Your task to perform on an android device: Go to CNN.com Image 0: 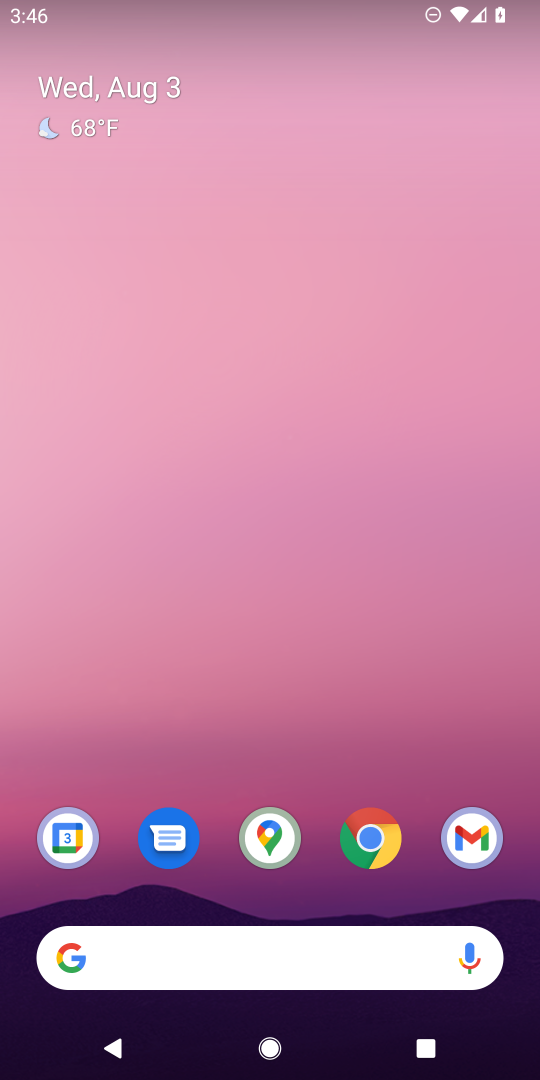
Step 0: click (366, 815)
Your task to perform on an android device: Go to CNN.com Image 1: 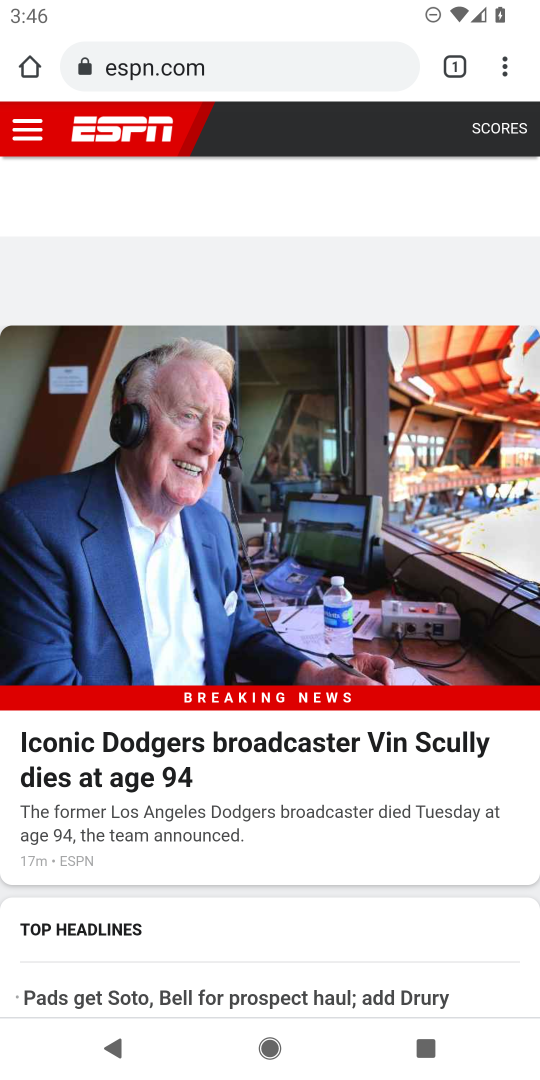
Step 1: click (305, 72)
Your task to perform on an android device: Go to CNN.com Image 2: 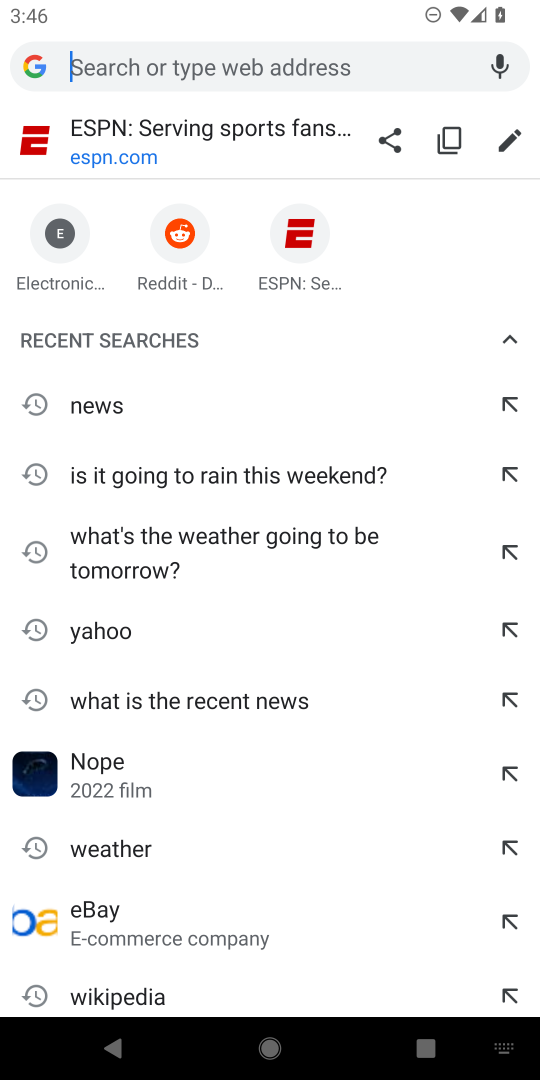
Step 2: type "CNN.com"
Your task to perform on an android device: Go to CNN.com Image 3: 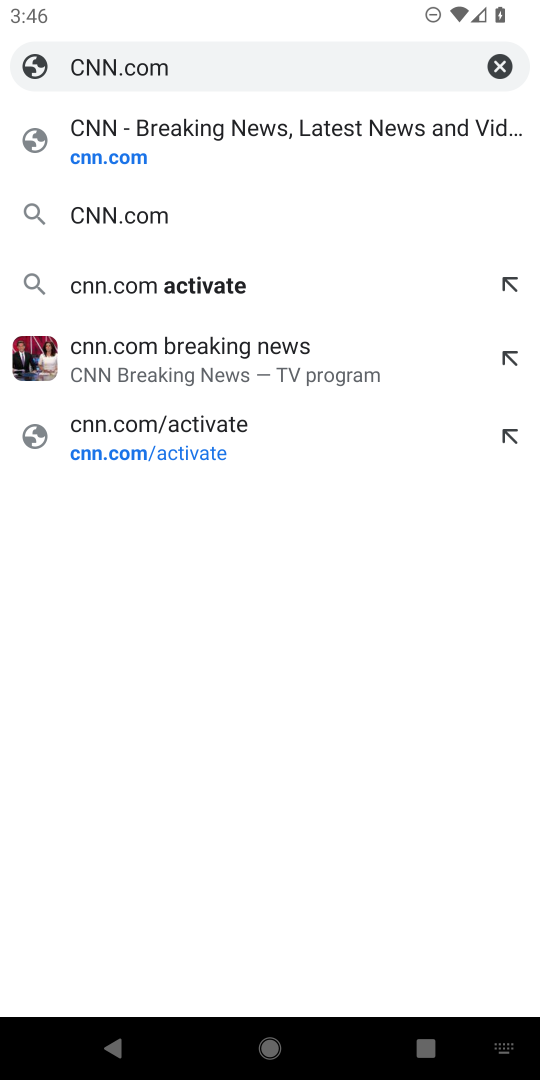
Step 3: click (224, 121)
Your task to perform on an android device: Go to CNN.com Image 4: 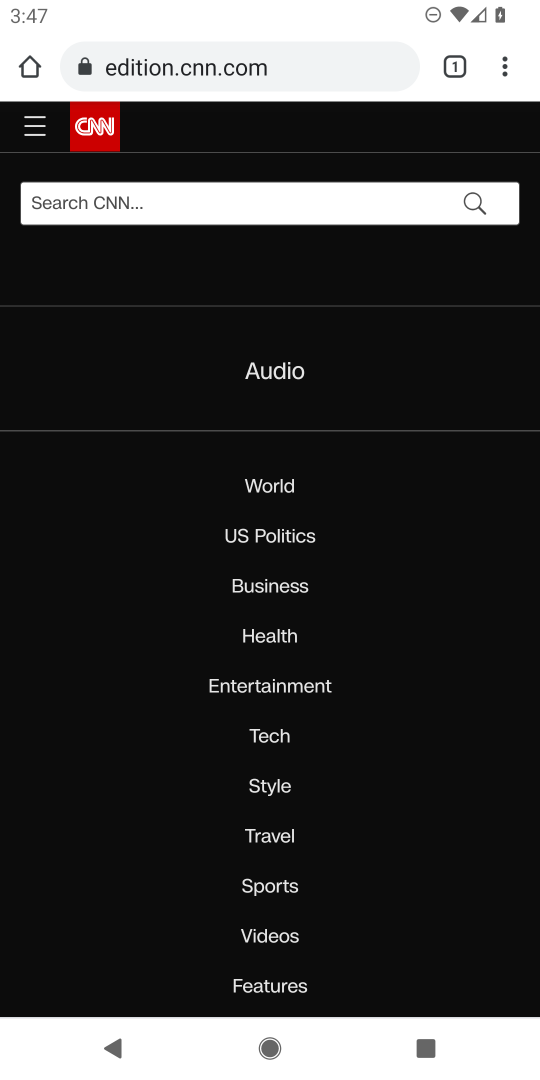
Step 4: task complete